Your task to perform on an android device: Go to Yahoo.com Image 0: 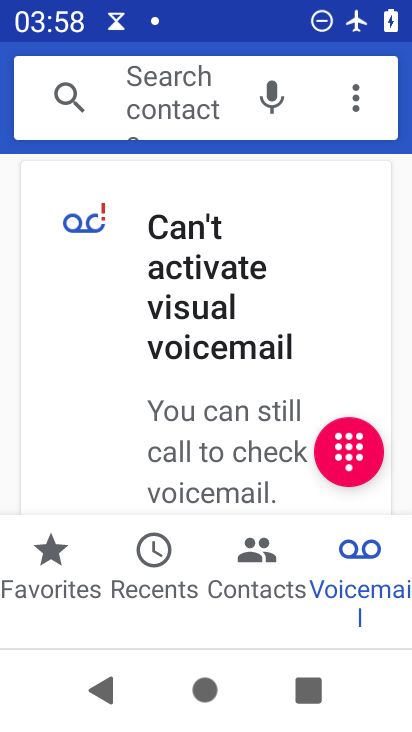
Step 0: press home button
Your task to perform on an android device: Go to Yahoo.com Image 1: 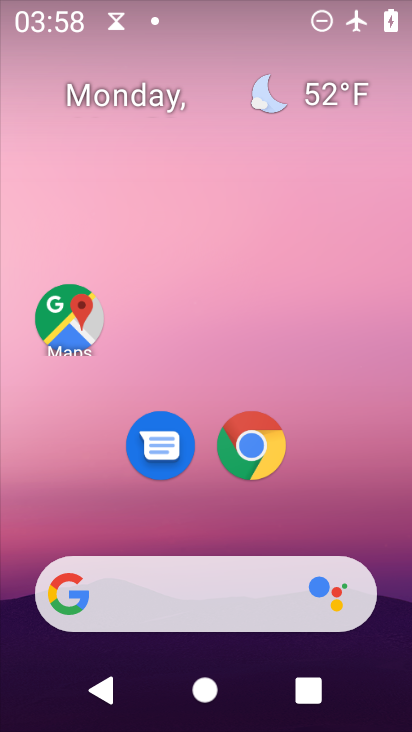
Step 1: click (247, 449)
Your task to perform on an android device: Go to Yahoo.com Image 2: 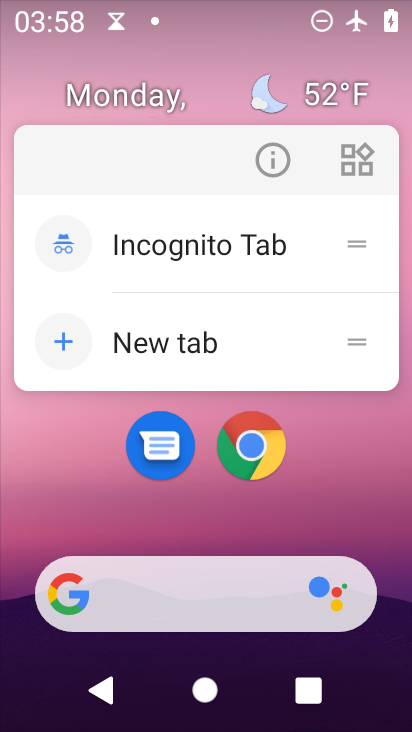
Step 2: click (249, 449)
Your task to perform on an android device: Go to Yahoo.com Image 3: 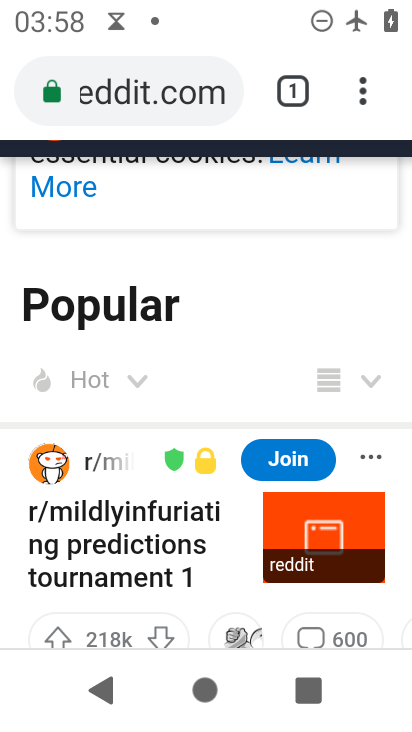
Step 3: click (183, 90)
Your task to perform on an android device: Go to Yahoo.com Image 4: 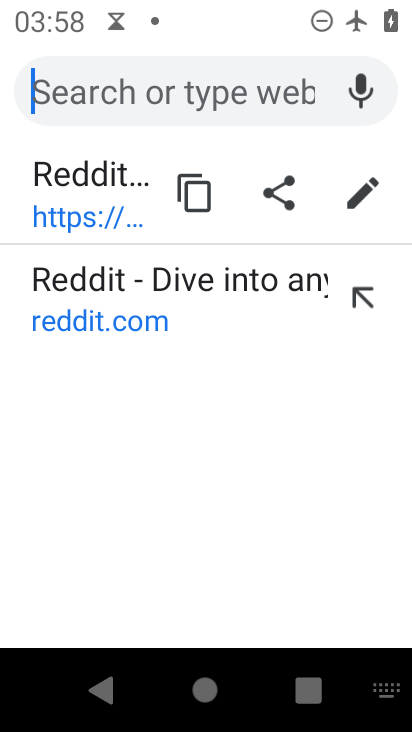
Step 4: type "Yahoo.com"
Your task to perform on an android device: Go to Yahoo.com Image 5: 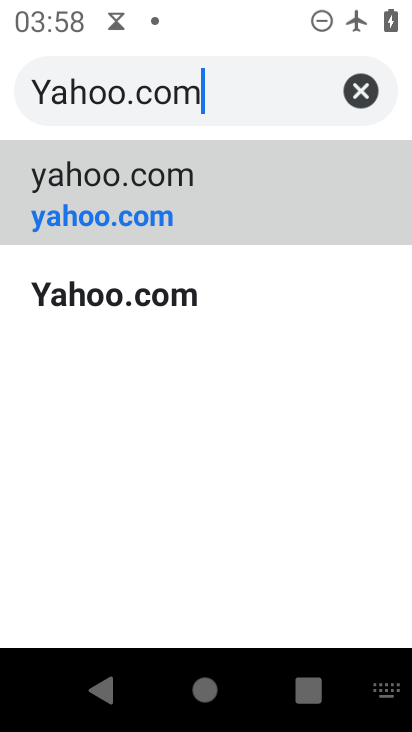
Step 5: click (213, 232)
Your task to perform on an android device: Go to Yahoo.com Image 6: 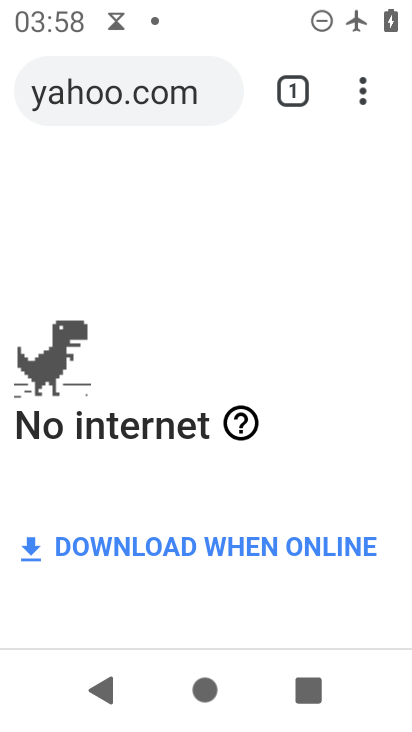
Step 6: task complete